Your task to perform on an android device: toggle sleep mode Image 0: 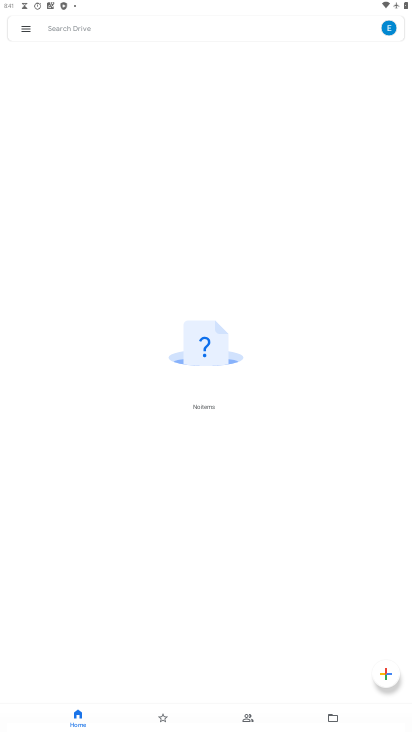
Step 0: drag from (229, 519) to (333, 215)
Your task to perform on an android device: toggle sleep mode Image 1: 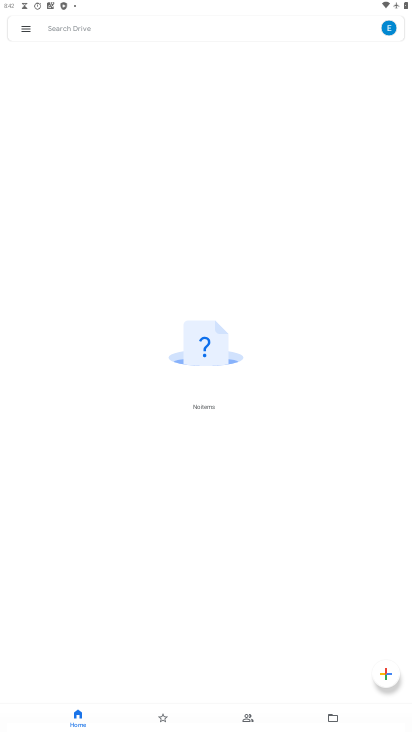
Step 1: click (273, 278)
Your task to perform on an android device: toggle sleep mode Image 2: 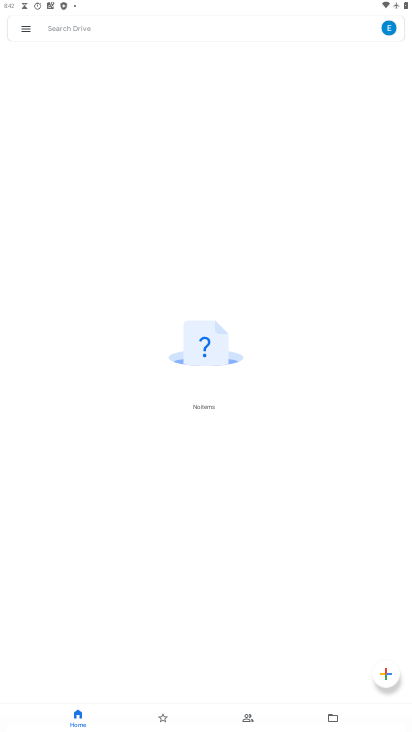
Step 2: drag from (285, 531) to (289, 306)
Your task to perform on an android device: toggle sleep mode Image 3: 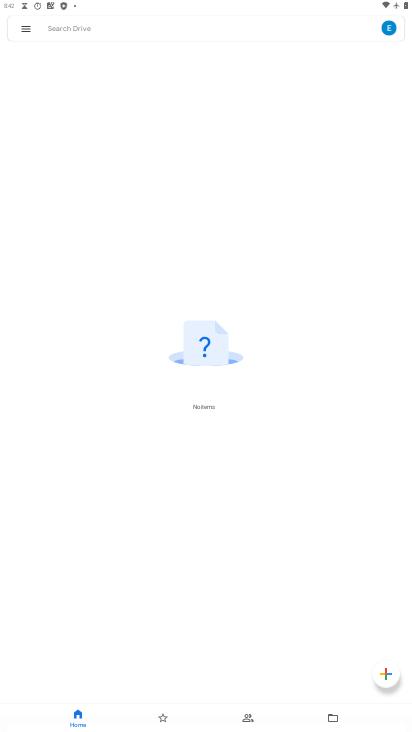
Step 3: drag from (271, 548) to (299, 300)
Your task to perform on an android device: toggle sleep mode Image 4: 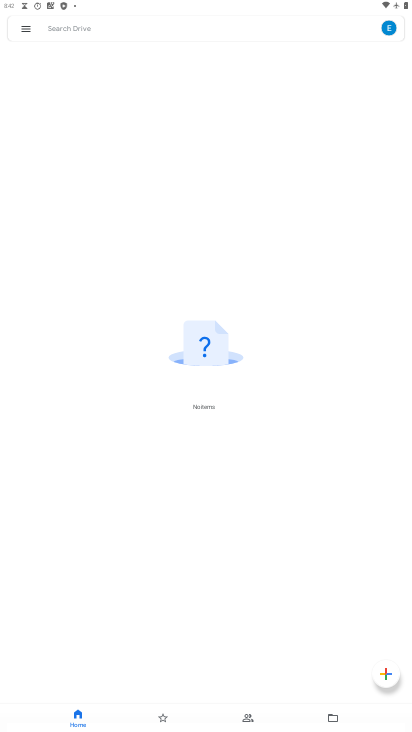
Step 4: drag from (249, 549) to (257, 215)
Your task to perform on an android device: toggle sleep mode Image 5: 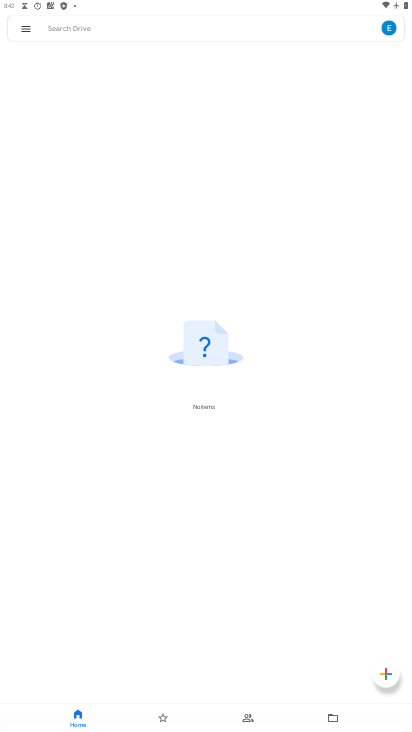
Step 5: press home button
Your task to perform on an android device: toggle sleep mode Image 6: 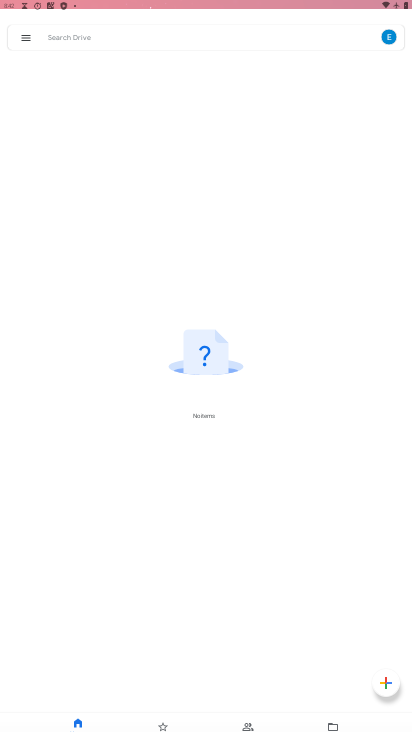
Step 6: drag from (117, 554) to (326, 94)
Your task to perform on an android device: toggle sleep mode Image 7: 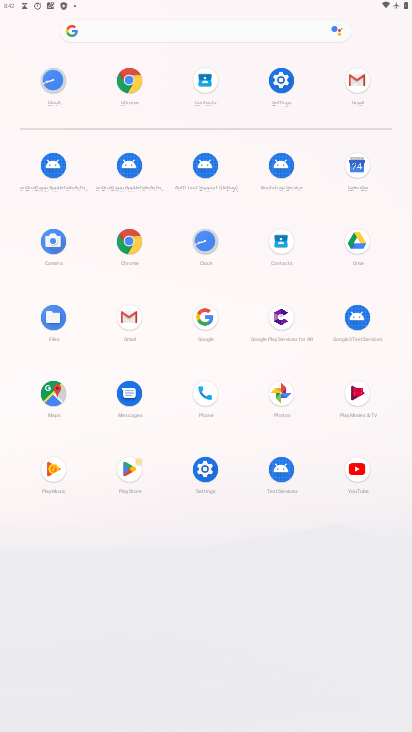
Step 7: click (279, 85)
Your task to perform on an android device: toggle sleep mode Image 8: 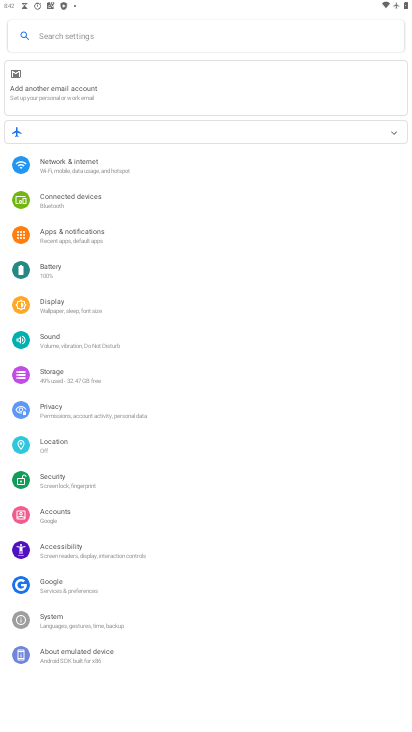
Step 8: drag from (226, 574) to (273, 194)
Your task to perform on an android device: toggle sleep mode Image 9: 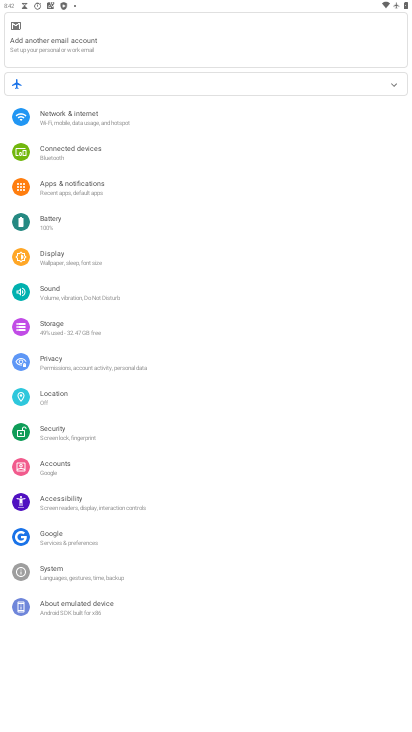
Step 9: drag from (110, 147) to (243, 554)
Your task to perform on an android device: toggle sleep mode Image 10: 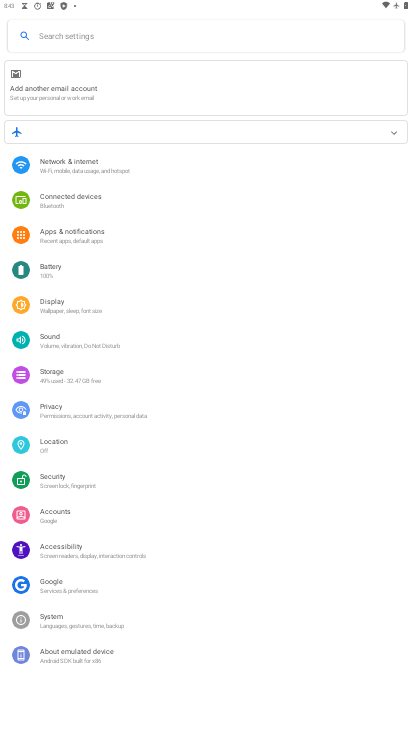
Step 10: click (94, 318)
Your task to perform on an android device: toggle sleep mode Image 11: 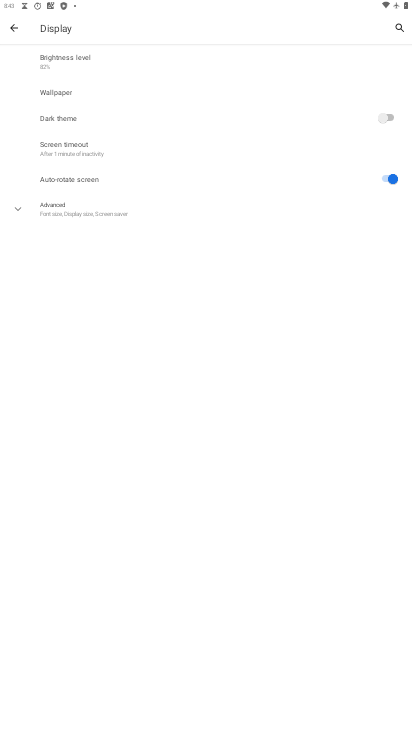
Step 11: click (101, 151)
Your task to perform on an android device: toggle sleep mode Image 12: 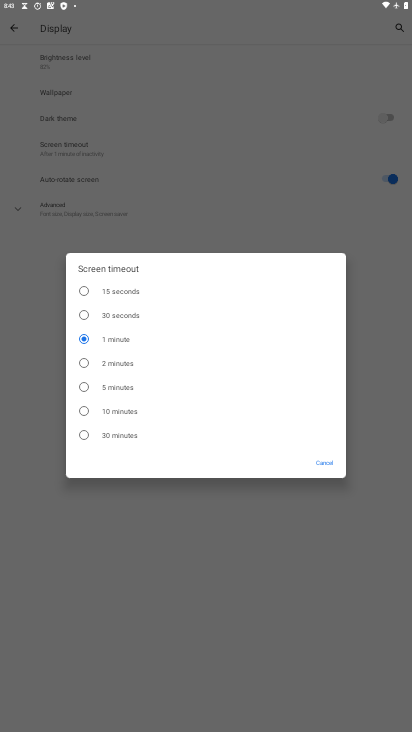
Step 12: drag from (143, 414) to (171, 243)
Your task to perform on an android device: toggle sleep mode Image 13: 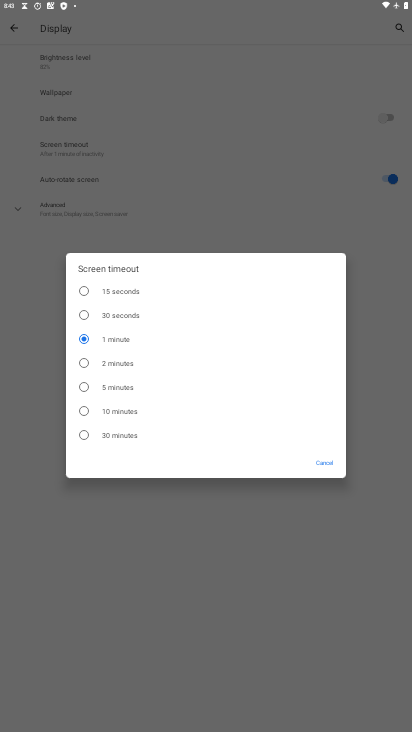
Step 13: click (94, 287)
Your task to perform on an android device: toggle sleep mode Image 14: 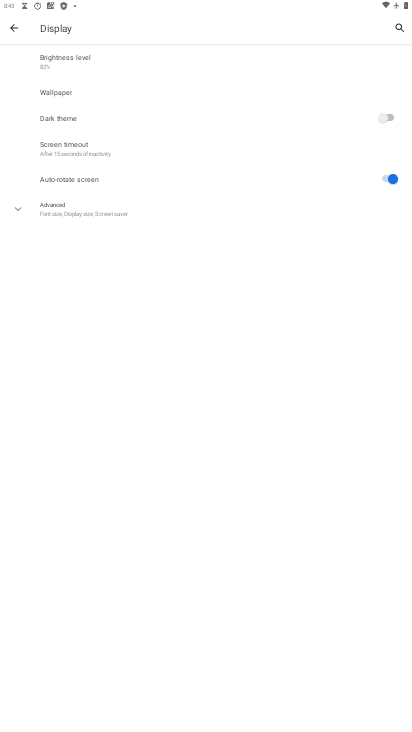
Step 14: drag from (167, 493) to (184, 283)
Your task to perform on an android device: toggle sleep mode Image 15: 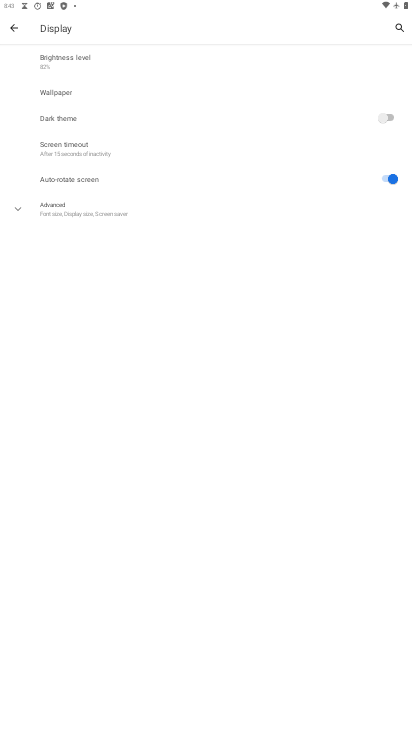
Step 15: drag from (214, 484) to (239, 275)
Your task to perform on an android device: toggle sleep mode Image 16: 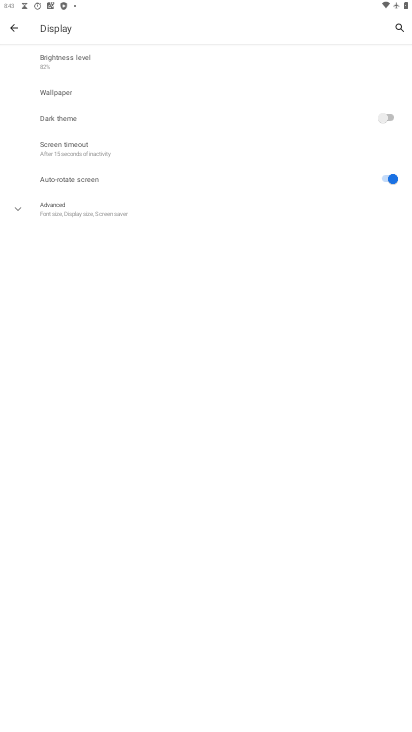
Step 16: drag from (241, 526) to (330, 307)
Your task to perform on an android device: toggle sleep mode Image 17: 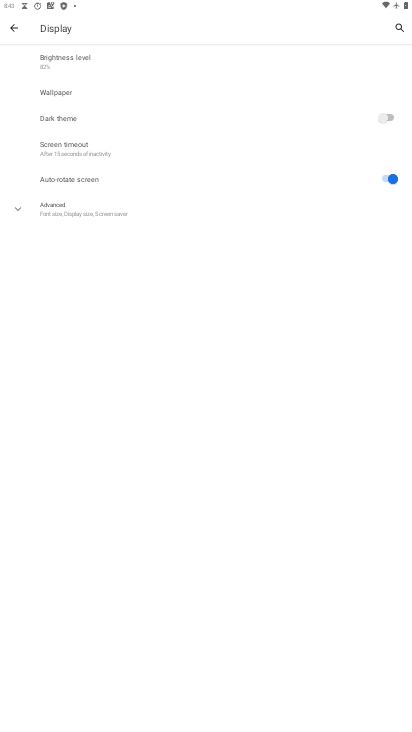
Step 17: drag from (218, 417) to (300, 187)
Your task to perform on an android device: toggle sleep mode Image 18: 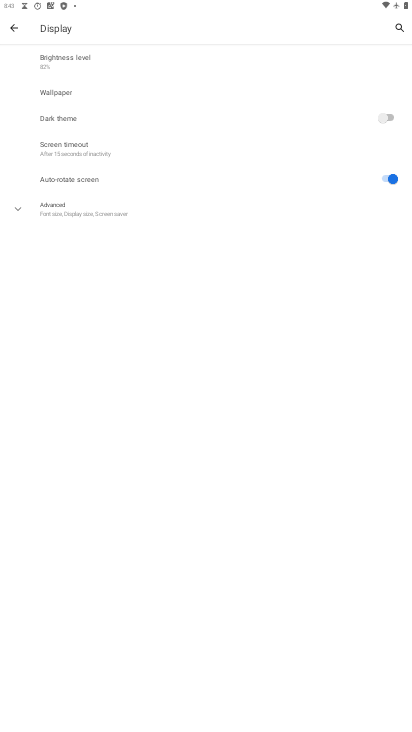
Step 18: drag from (199, 624) to (272, 274)
Your task to perform on an android device: toggle sleep mode Image 19: 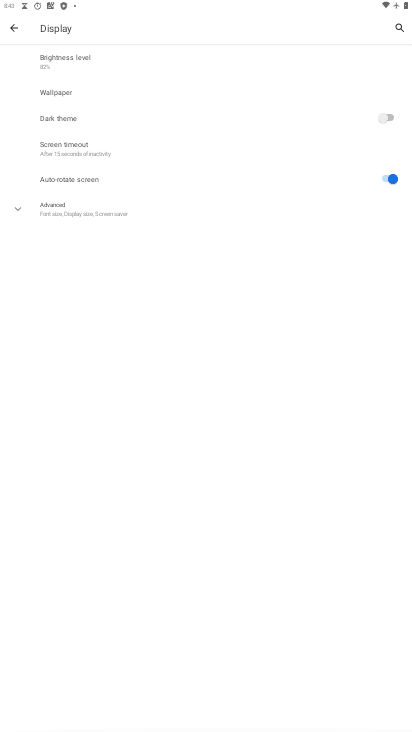
Step 19: drag from (149, 549) to (199, 292)
Your task to perform on an android device: toggle sleep mode Image 20: 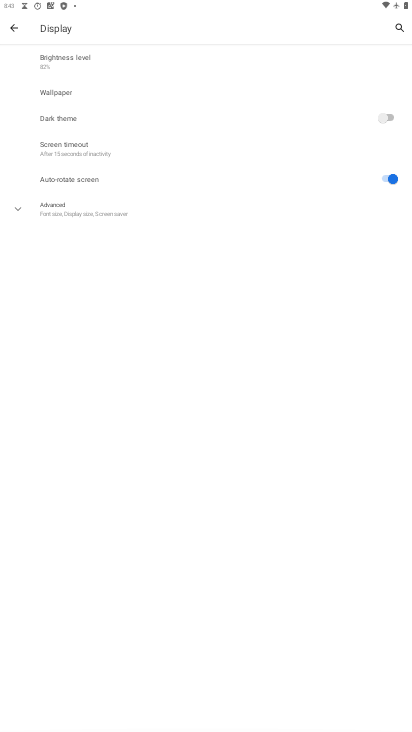
Step 20: click (99, 151)
Your task to perform on an android device: toggle sleep mode Image 21: 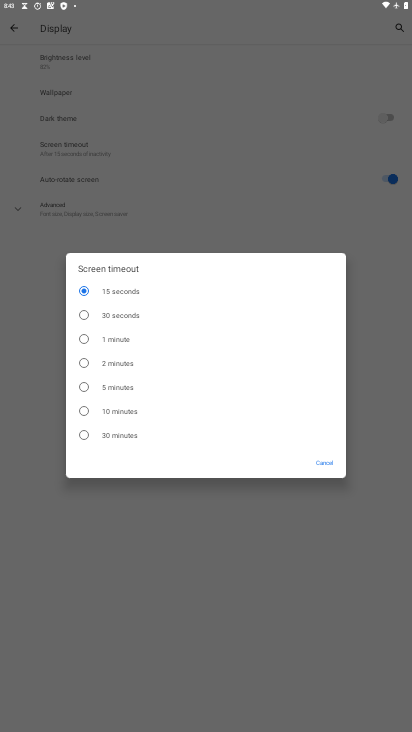
Step 21: task complete